Your task to perform on an android device: change the clock display to analog Image 0: 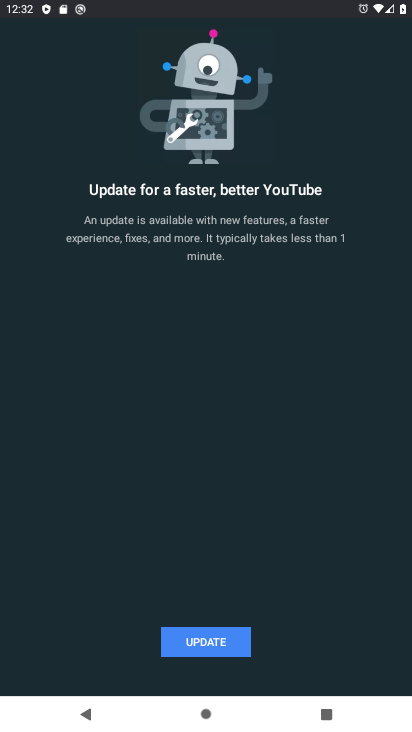
Step 0: press home button
Your task to perform on an android device: change the clock display to analog Image 1: 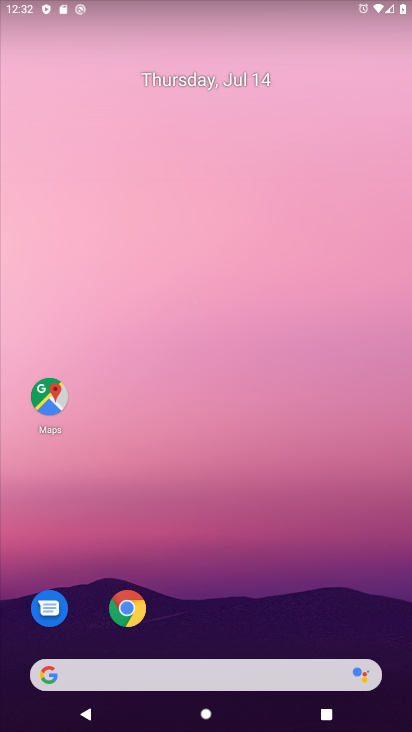
Step 1: drag from (173, 667) to (230, 293)
Your task to perform on an android device: change the clock display to analog Image 2: 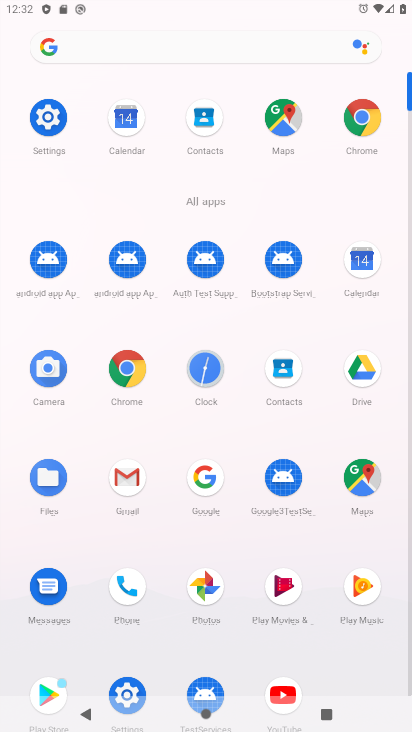
Step 2: click (205, 369)
Your task to perform on an android device: change the clock display to analog Image 3: 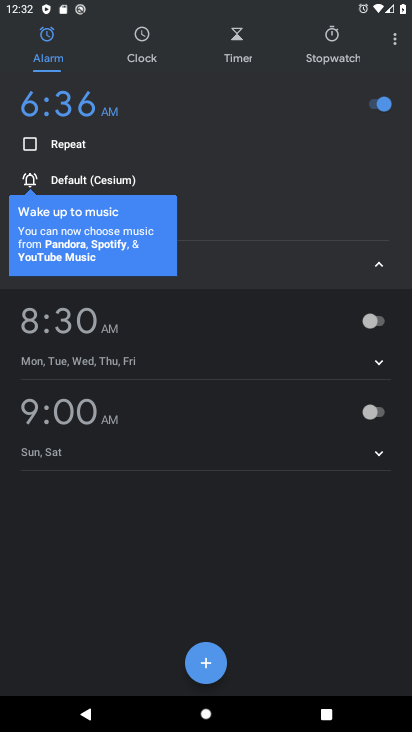
Step 3: click (397, 39)
Your task to perform on an android device: change the clock display to analog Image 4: 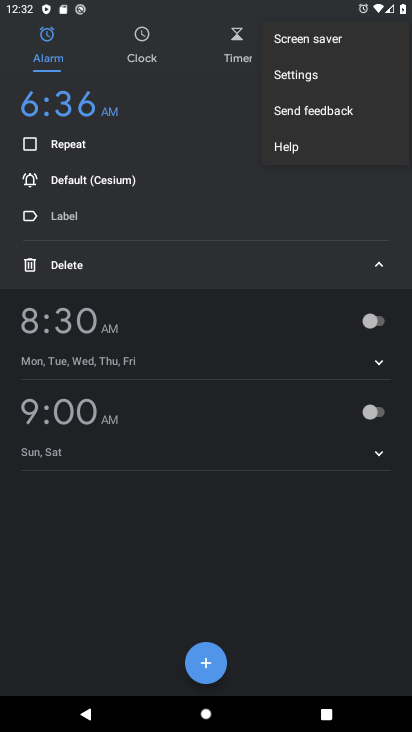
Step 4: click (310, 80)
Your task to perform on an android device: change the clock display to analog Image 5: 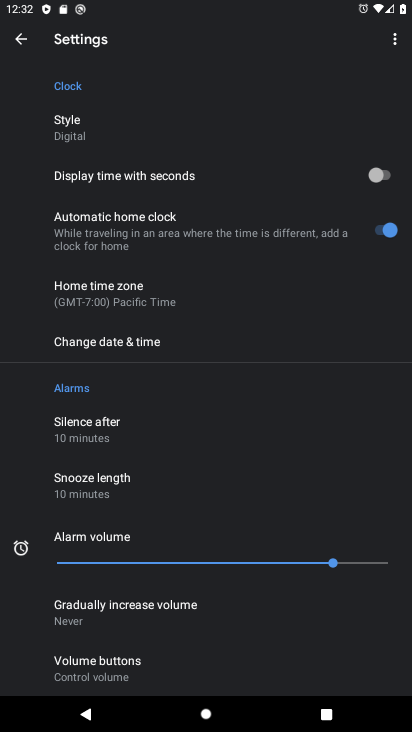
Step 5: click (89, 135)
Your task to perform on an android device: change the clock display to analog Image 6: 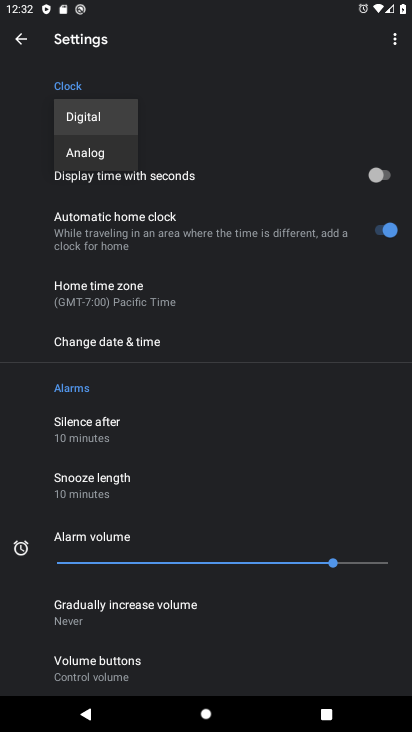
Step 6: click (90, 151)
Your task to perform on an android device: change the clock display to analog Image 7: 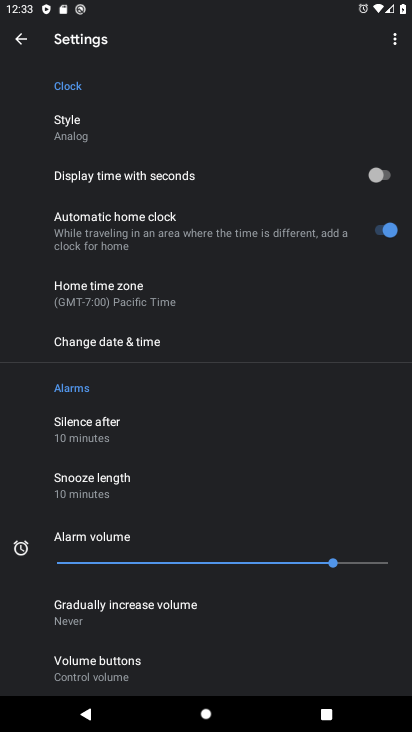
Step 7: task complete